Your task to perform on an android device: turn on javascript in the chrome app Image 0: 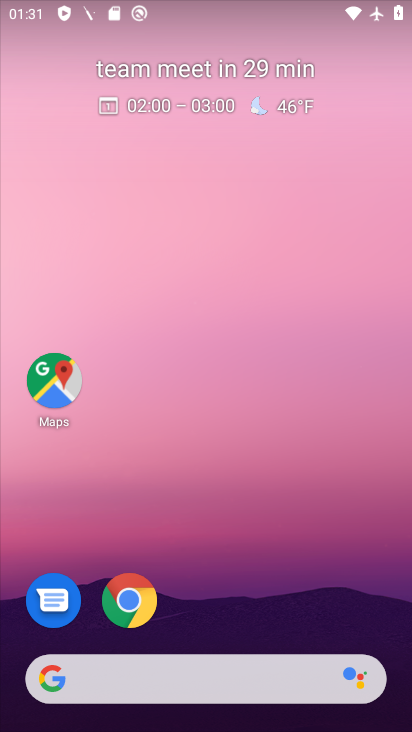
Step 0: click (122, 582)
Your task to perform on an android device: turn on javascript in the chrome app Image 1: 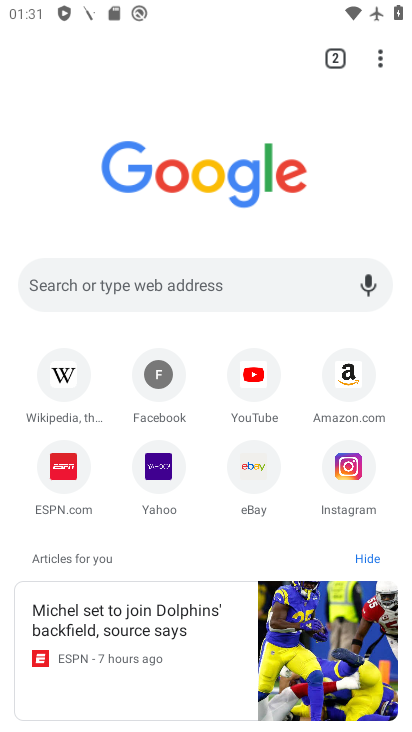
Step 1: click (373, 57)
Your task to perform on an android device: turn on javascript in the chrome app Image 2: 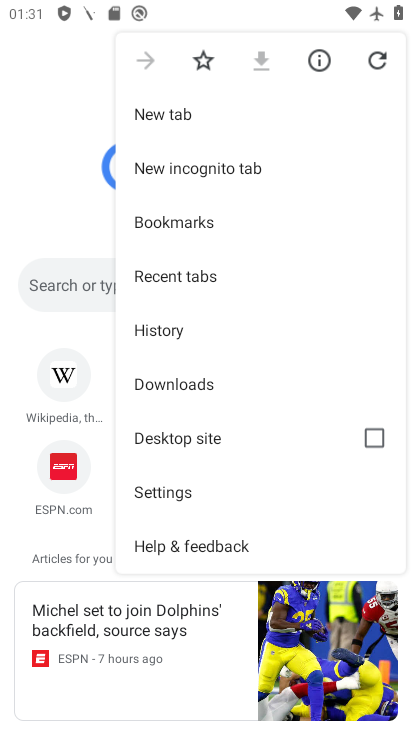
Step 2: click (182, 486)
Your task to perform on an android device: turn on javascript in the chrome app Image 3: 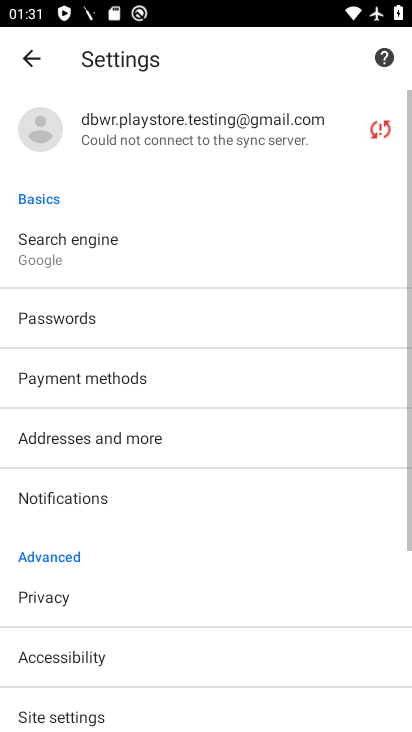
Step 3: drag from (187, 552) to (178, 237)
Your task to perform on an android device: turn on javascript in the chrome app Image 4: 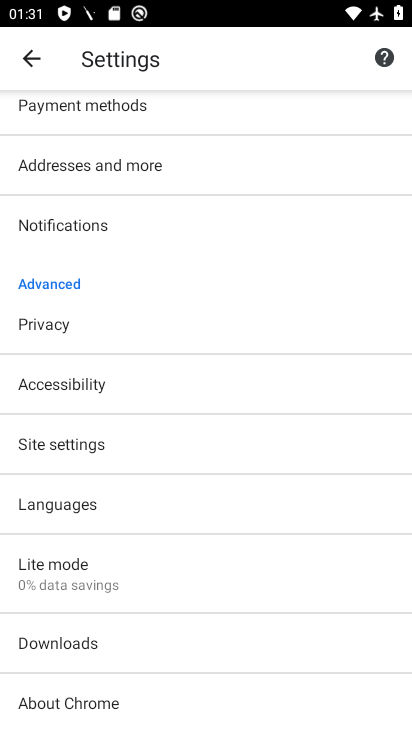
Step 4: click (71, 459)
Your task to perform on an android device: turn on javascript in the chrome app Image 5: 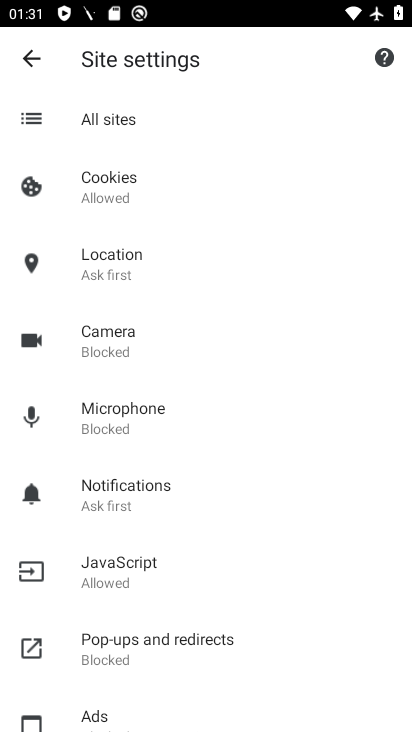
Step 5: click (123, 569)
Your task to perform on an android device: turn on javascript in the chrome app Image 6: 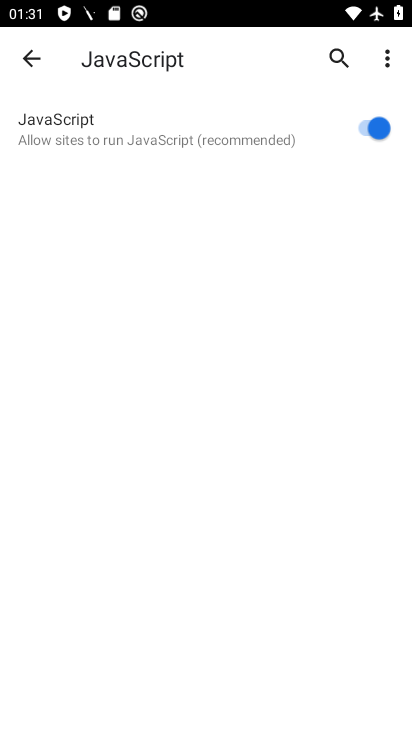
Step 6: task complete